Your task to perform on an android device: turn on data saver in the chrome app Image 0: 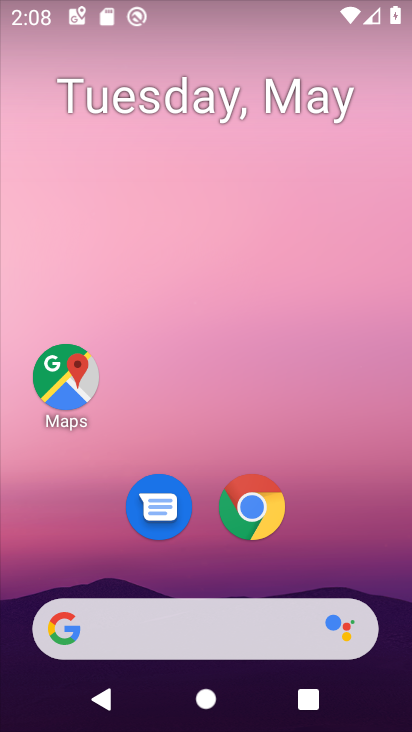
Step 0: click (239, 507)
Your task to perform on an android device: turn on data saver in the chrome app Image 1: 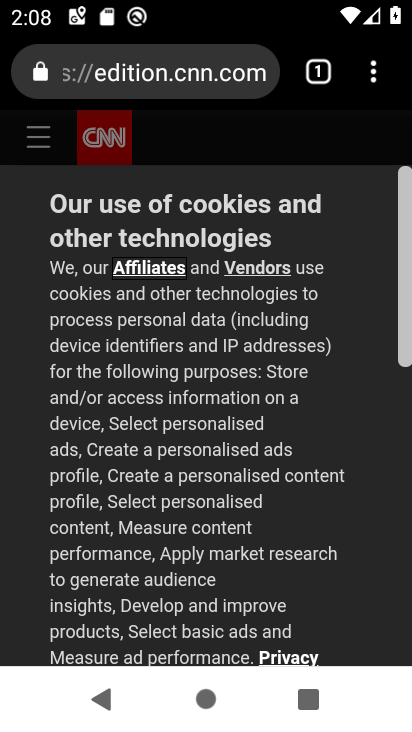
Step 1: drag from (367, 76) to (184, 493)
Your task to perform on an android device: turn on data saver in the chrome app Image 2: 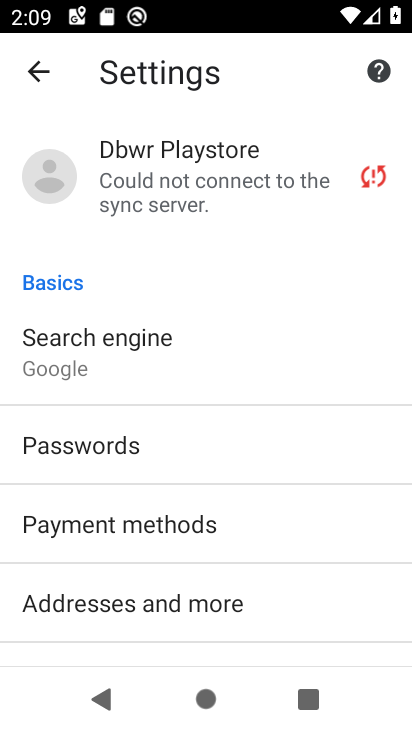
Step 2: drag from (116, 577) to (120, 304)
Your task to perform on an android device: turn on data saver in the chrome app Image 3: 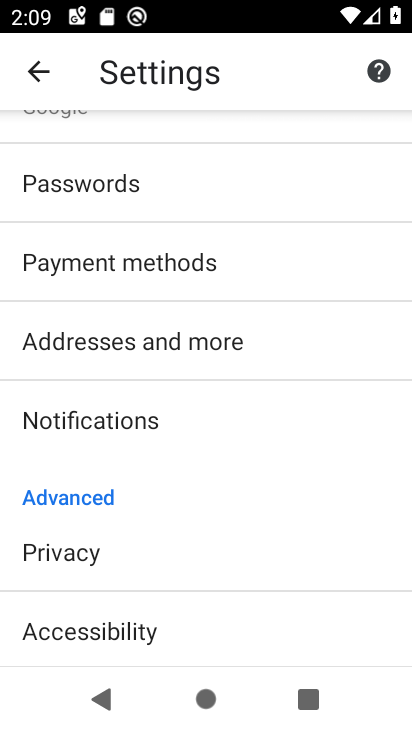
Step 3: drag from (152, 497) to (153, 241)
Your task to perform on an android device: turn on data saver in the chrome app Image 4: 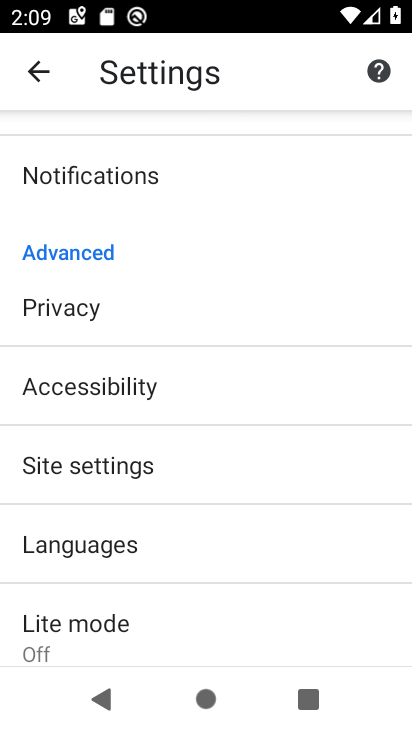
Step 4: drag from (154, 522) to (176, 395)
Your task to perform on an android device: turn on data saver in the chrome app Image 5: 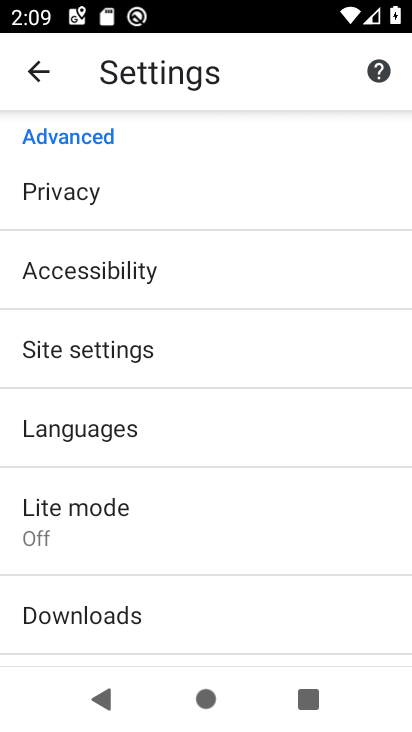
Step 5: click (151, 525)
Your task to perform on an android device: turn on data saver in the chrome app Image 6: 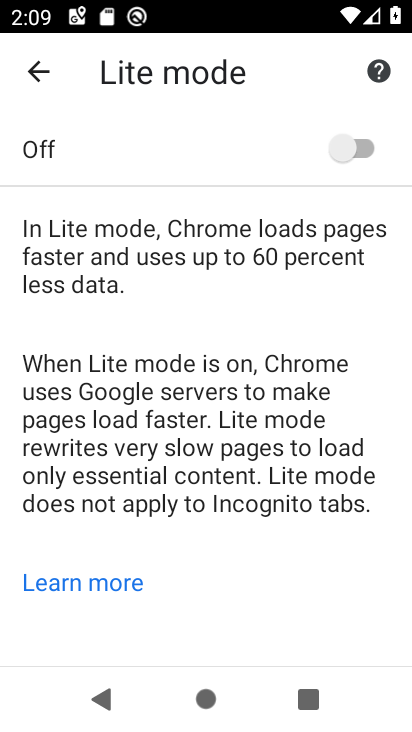
Step 6: click (360, 147)
Your task to perform on an android device: turn on data saver in the chrome app Image 7: 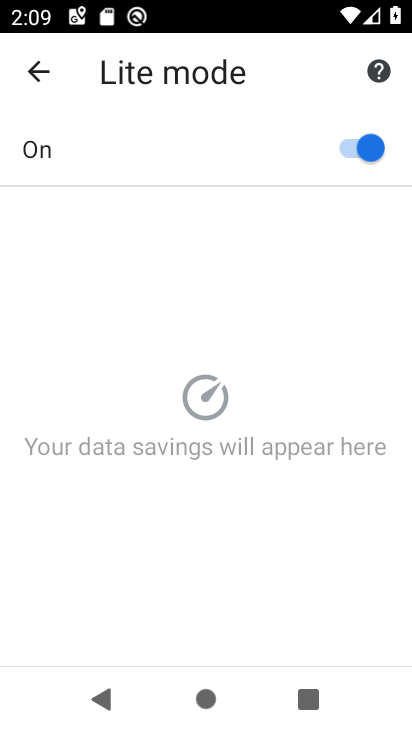
Step 7: task complete